Your task to perform on an android device: turn off location Image 0: 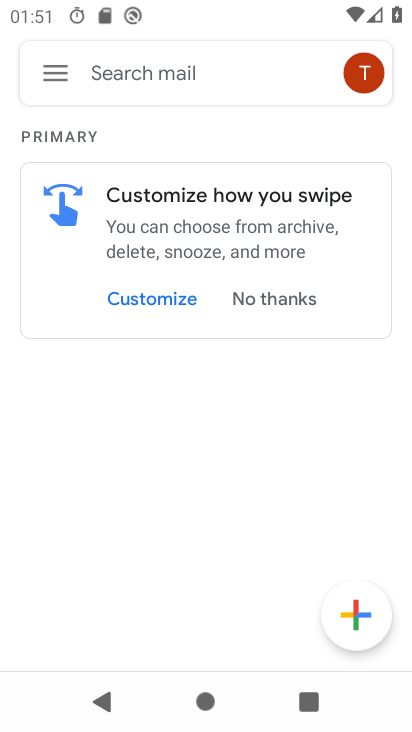
Step 0: press home button
Your task to perform on an android device: turn off location Image 1: 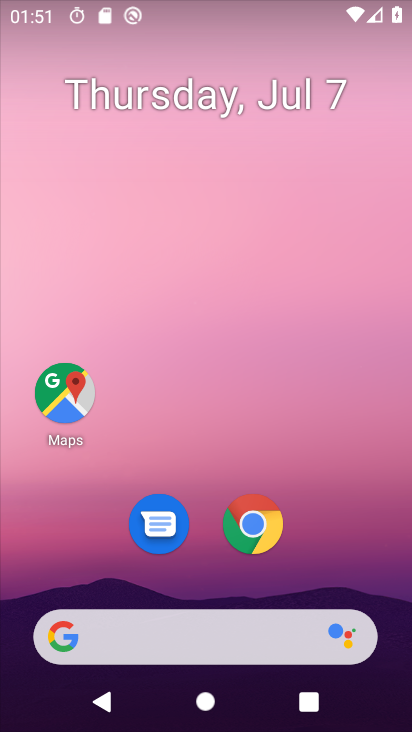
Step 1: drag from (265, 448) to (322, 31)
Your task to perform on an android device: turn off location Image 2: 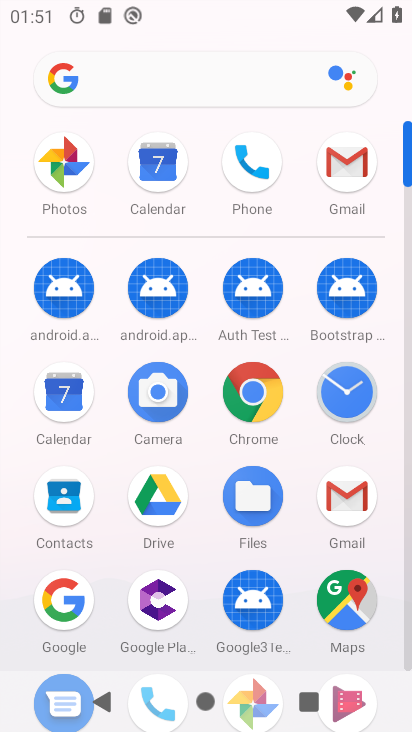
Step 2: drag from (223, 429) to (248, 116)
Your task to perform on an android device: turn off location Image 3: 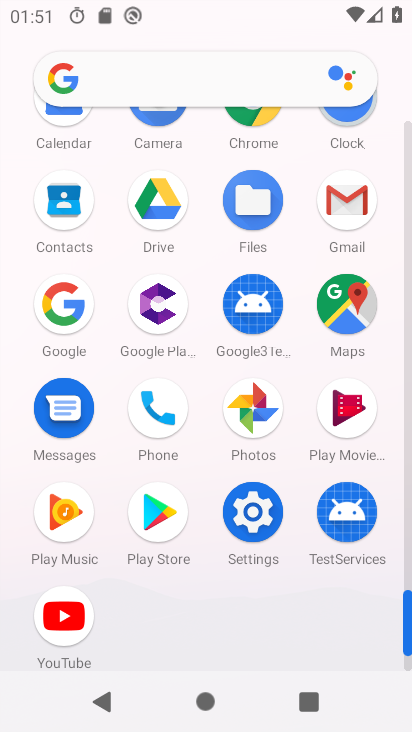
Step 3: click (245, 514)
Your task to perform on an android device: turn off location Image 4: 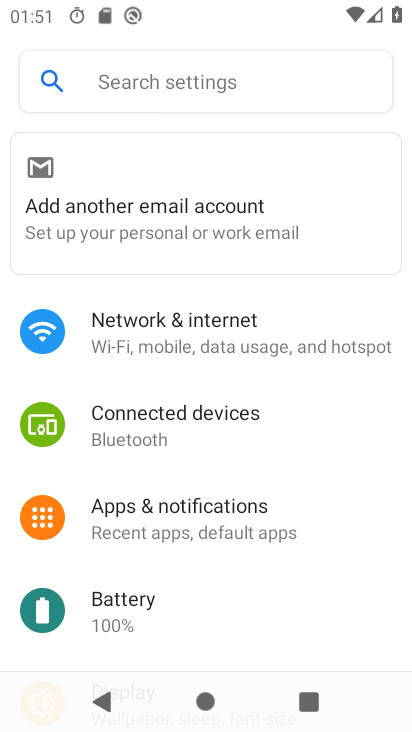
Step 4: drag from (190, 587) to (214, 103)
Your task to perform on an android device: turn off location Image 5: 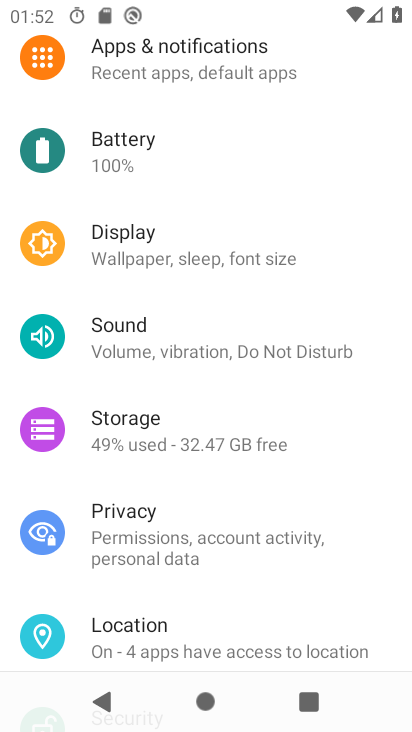
Step 5: click (209, 635)
Your task to perform on an android device: turn off location Image 6: 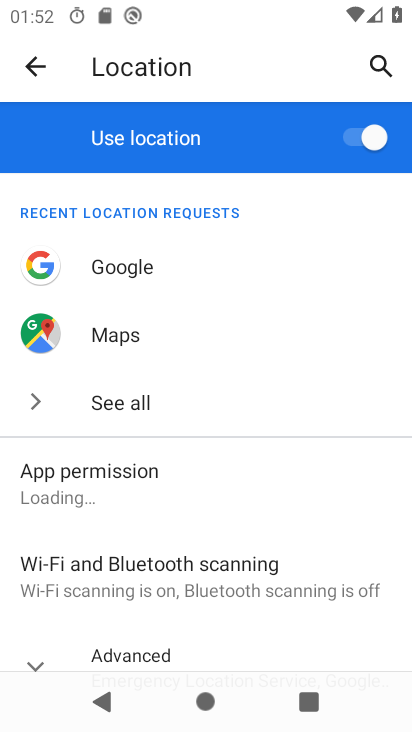
Step 6: click (357, 135)
Your task to perform on an android device: turn off location Image 7: 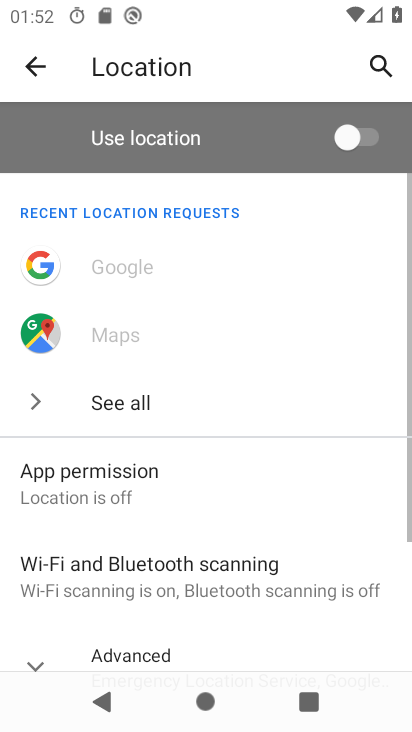
Step 7: task complete